Your task to perform on an android device: change keyboard looks Image 0: 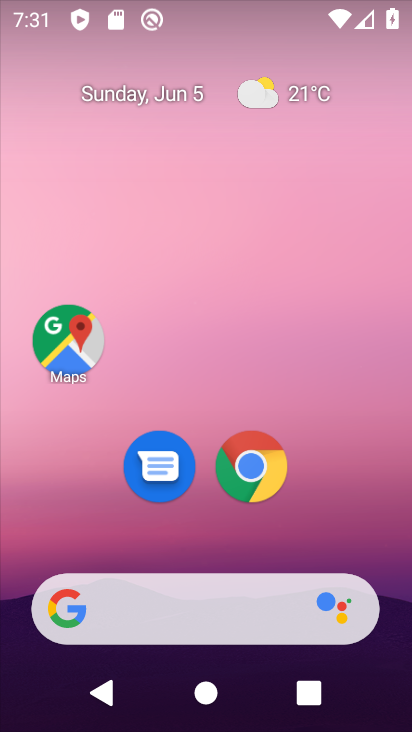
Step 0: drag from (247, 532) to (239, 52)
Your task to perform on an android device: change keyboard looks Image 1: 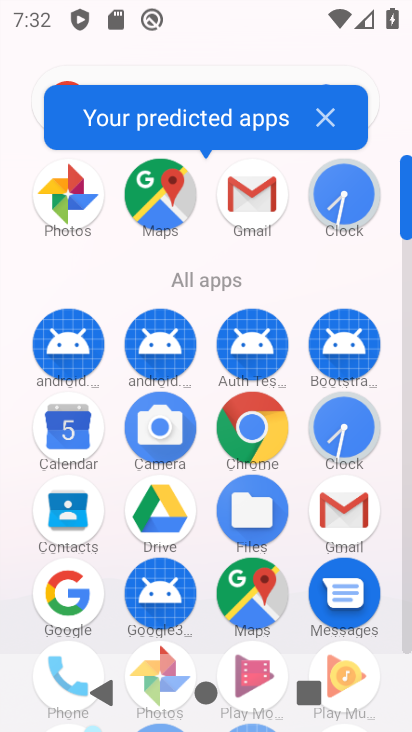
Step 1: drag from (217, 614) to (279, 246)
Your task to perform on an android device: change keyboard looks Image 2: 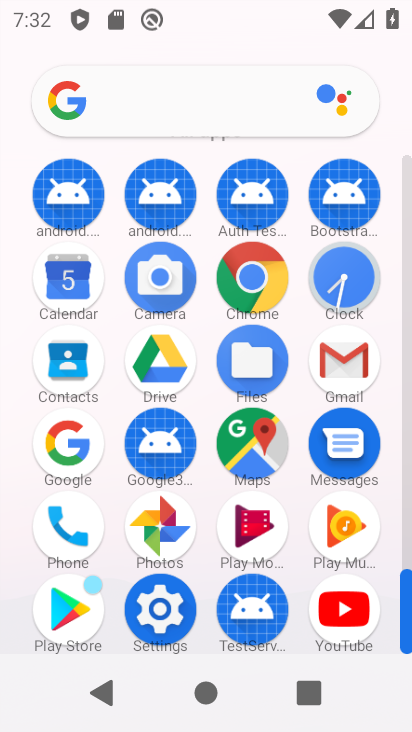
Step 2: click (170, 624)
Your task to perform on an android device: change keyboard looks Image 3: 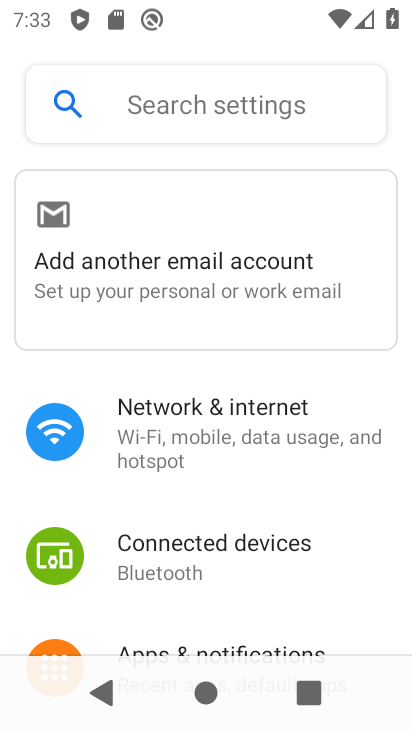
Step 3: drag from (278, 574) to (261, 44)
Your task to perform on an android device: change keyboard looks Image 4: 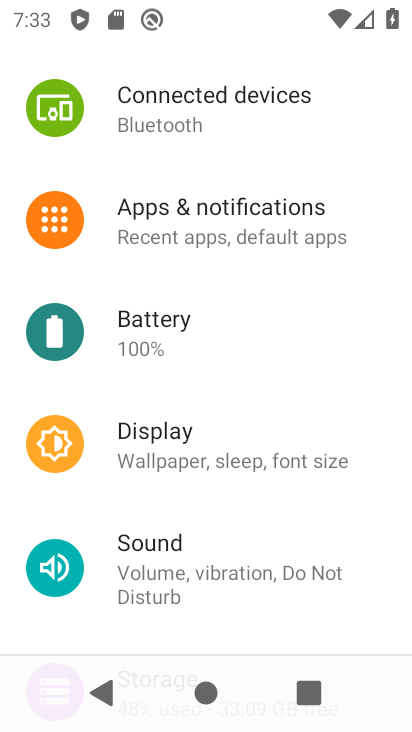
Step 4: drag from (190, 597) to (287, 143)
Your task to perform on an android device: change keyboard looks Image 5: 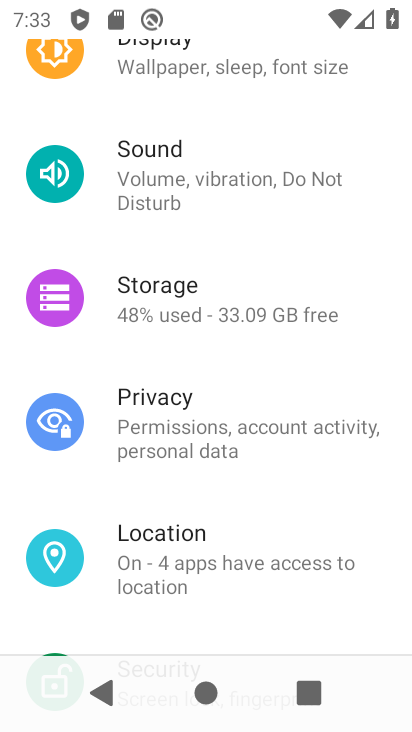
Step 5: drag from (184, 538) to (262, 70)
Your task to perform on an android device: change keyboard looks Image 6: 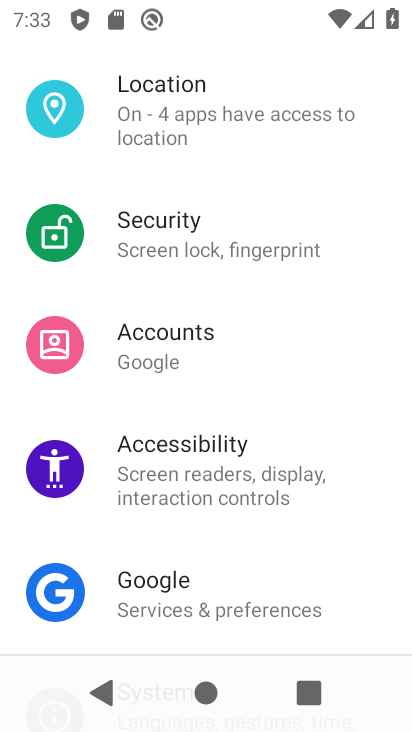
Step 6: drag from (225, 571) to (259, 98)
Your task to perform on an android device: change keyboard looks Image 7: 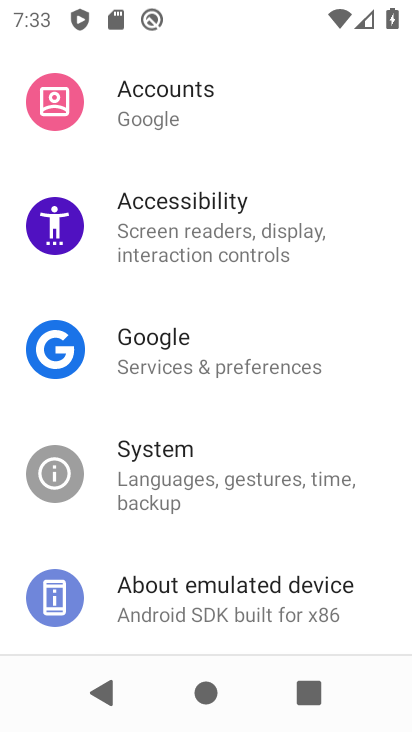
Step 7: drag from (143, 629) to (205, 188)
Your task to perform on an android device: change keyboard looks Image 8: 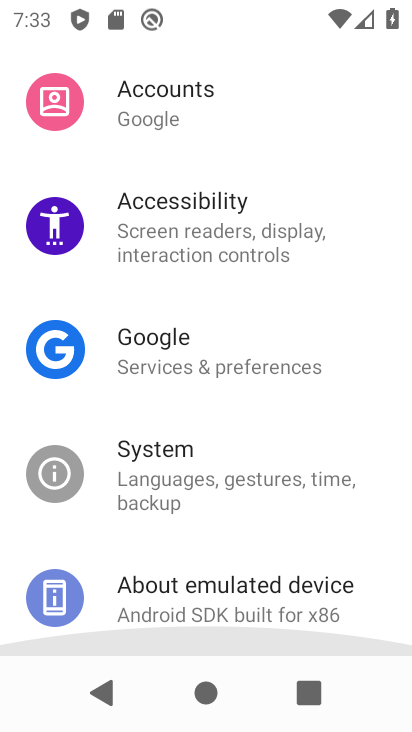
Step 8: click (145, 470)
Your task to perform on an android device: change keyboard looks Image 9: 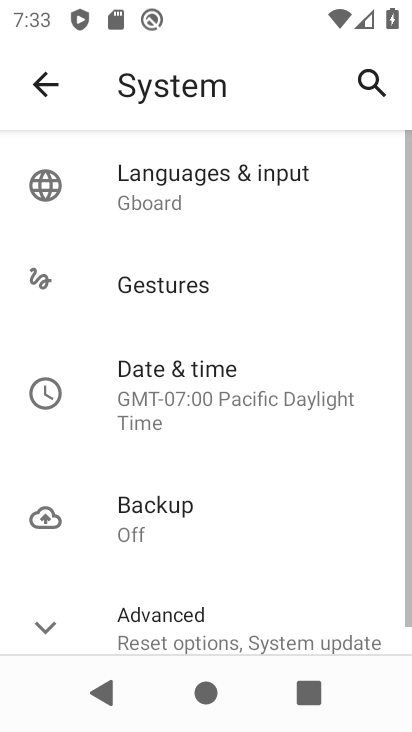
Step 9: click (166, 196)
Your task to perform on an android device: change keyboard looks Image 10: 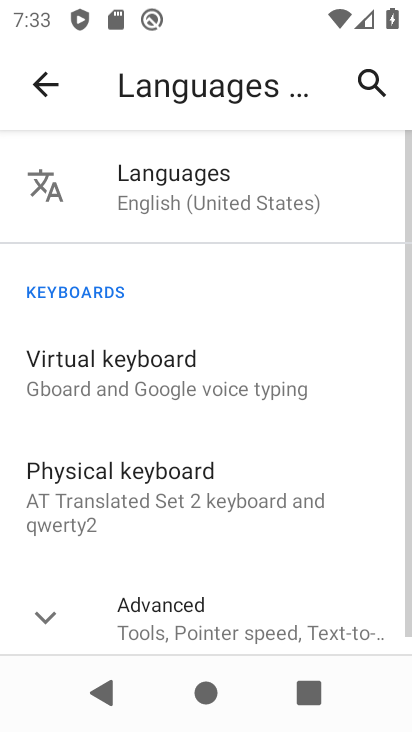
Step 10: click (118, 381)
Your task to perform on an android device: change keyboard looks Image 11: 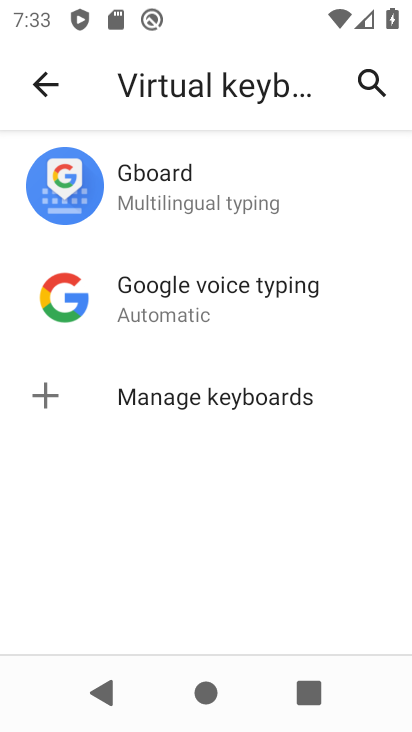
Step 11: click (224, 187)
Your task to perform on an android device: change keyboard looks Image 12: 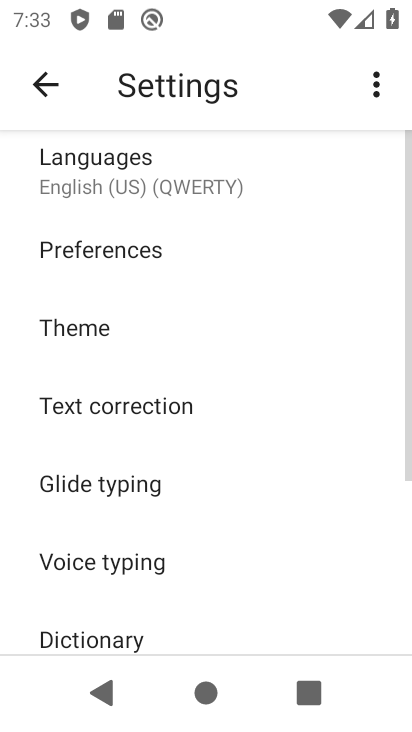
Step 12: click (98, 320)
Your task to perform on an android device: change keyboard looks Image 13: 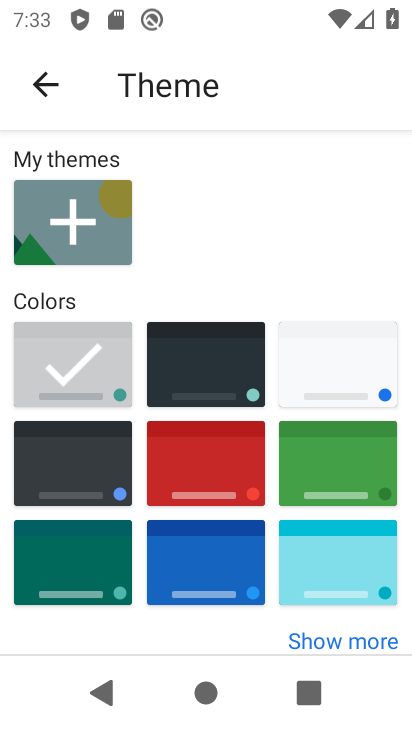
Step 13: click (216, 481)
Your task to perform on an android device: change keyboard looks Image 14: 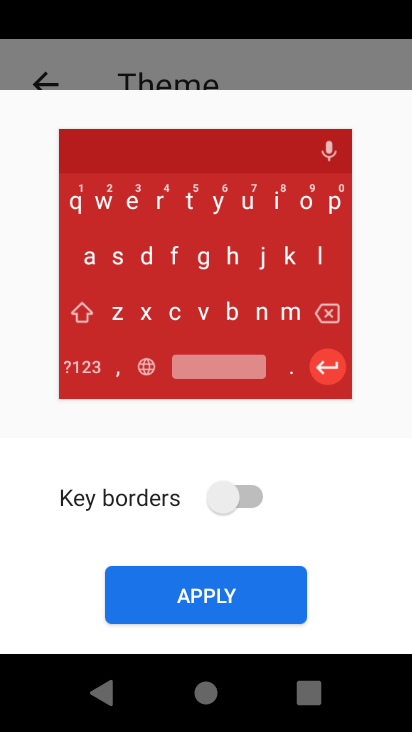
Step 14: click (198, 601)
Your task to perform on an android device: change keyboard looks Image 15: 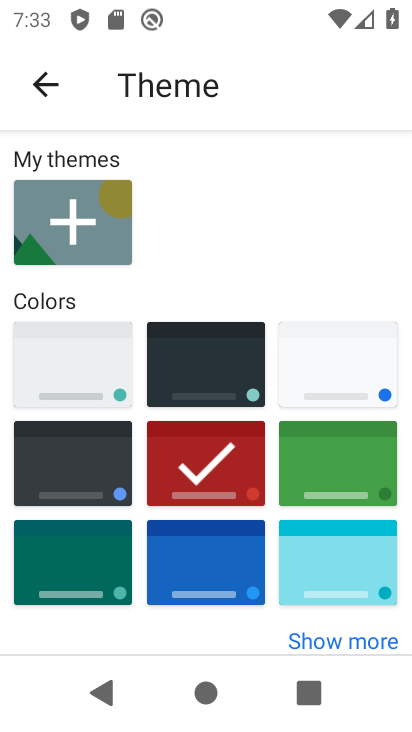
Step 15: task complete